Your task to perform on an android device: add a label to a message in the gmail app Image 0: 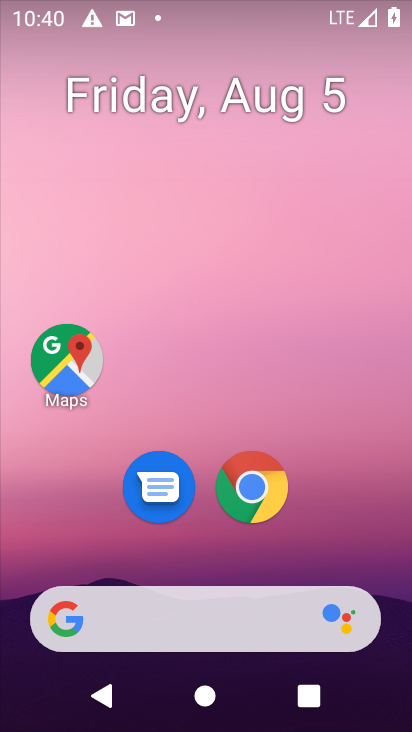
Step 0: drag from (181, 582) to (278, 0)
Your task to perform on an android device: add a label to a message in the gmail app Image 1: 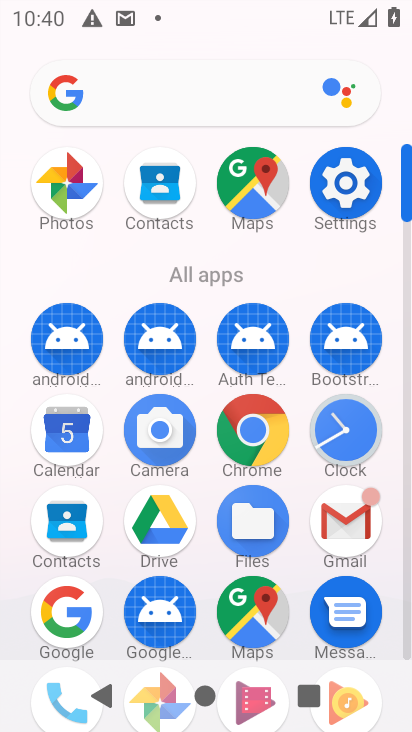
Step 1: click (354, 511)
Your task to perform on an android device: add a label to a message in the gmail app Image 2: 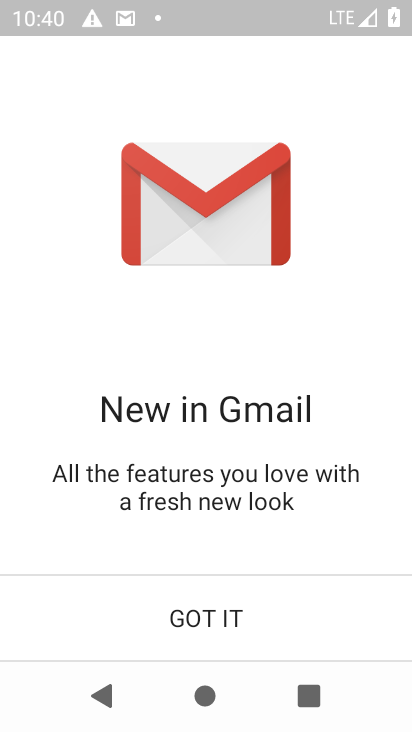
Step 2: click (201, 596)
Your task to perform on an android device: add a label to a message in the gmail app Image 3: 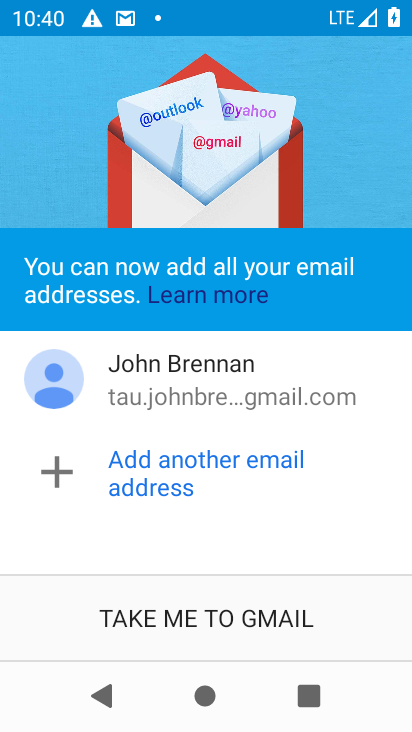
Step 3: click (254, 600)
Your task to perform on an android device: add a label to a message in the gmail app Image 4: 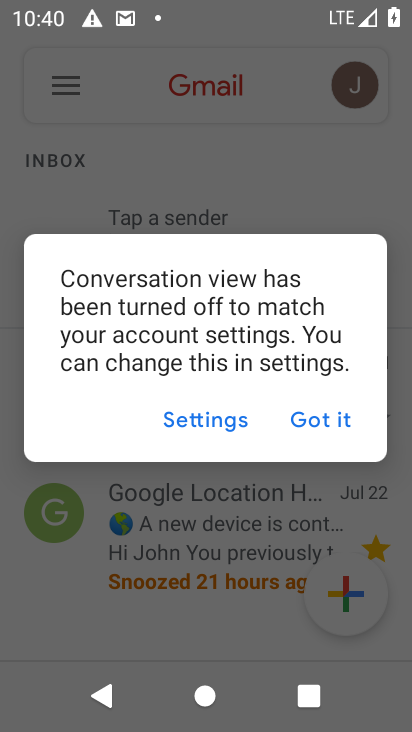
Step 4: click (293, 422)
Your task to perform on an android device: add a label to a message in the gmail app Image 5: 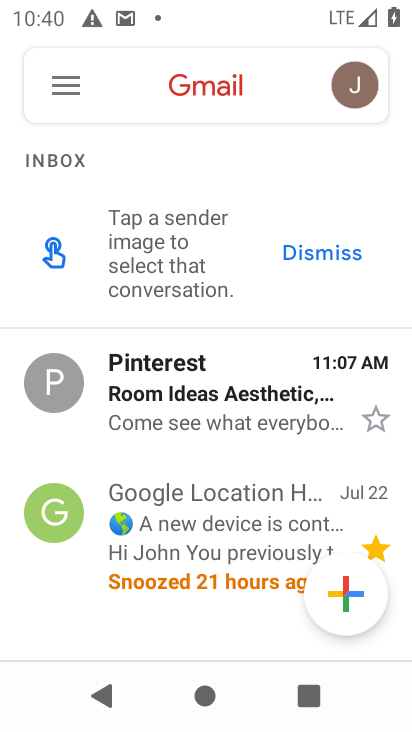
Step 5: click (318, 421)
Your task to perform on an android device: add a label to a message in the gmail app Image 6: 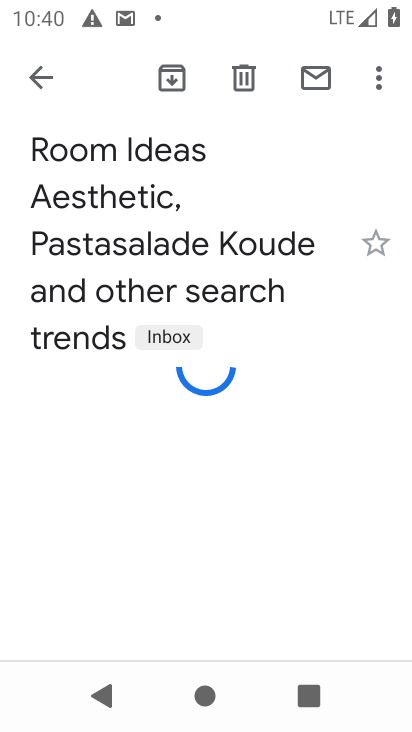
Step 6: click (373, 81)
Your task to perform on an android device: add a label to a message in the gmail app Image 7: 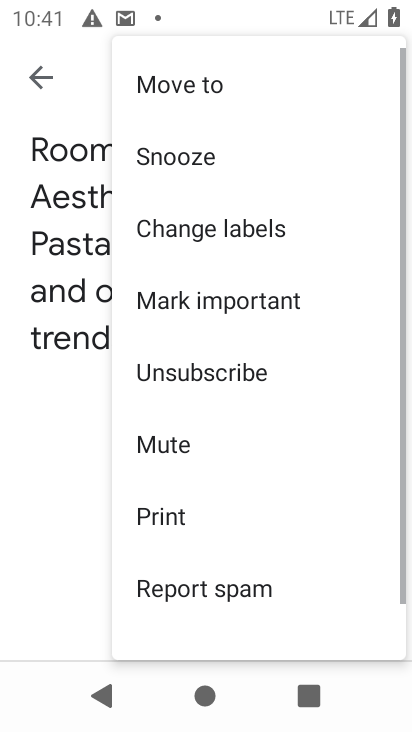
Step 7: click (242, 224)
Your task to perform on an android device: add a label to a message in the gmail app Image 8: 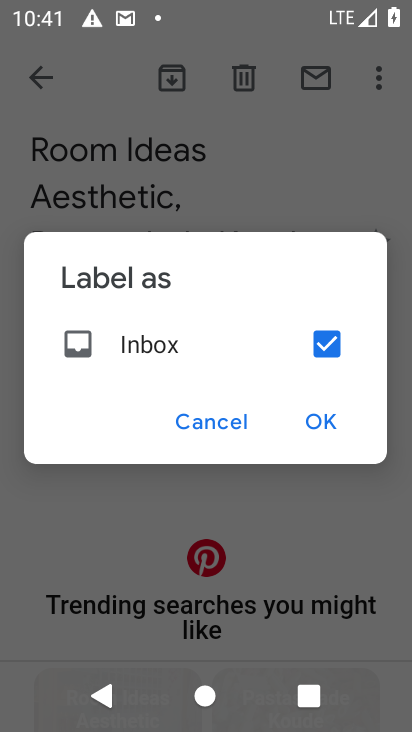
Step 8: click (113, 343)
Your task to perform on an android device: add a label to a message in the gmail app Image 9: 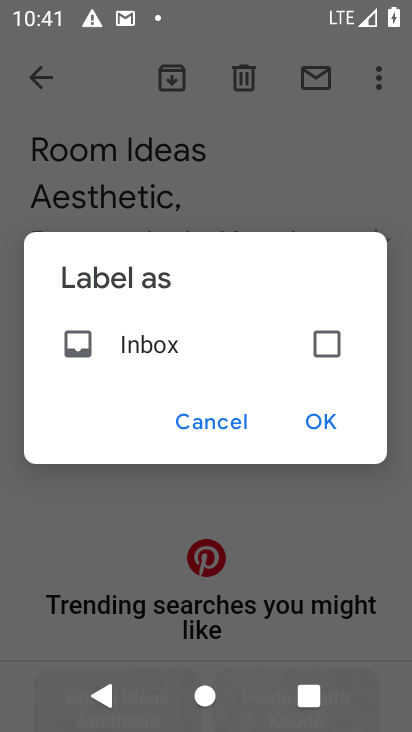
Step 9: click (266, 343)
Your task to perform on an android device: add a label to a message in the gmail app Image 10: 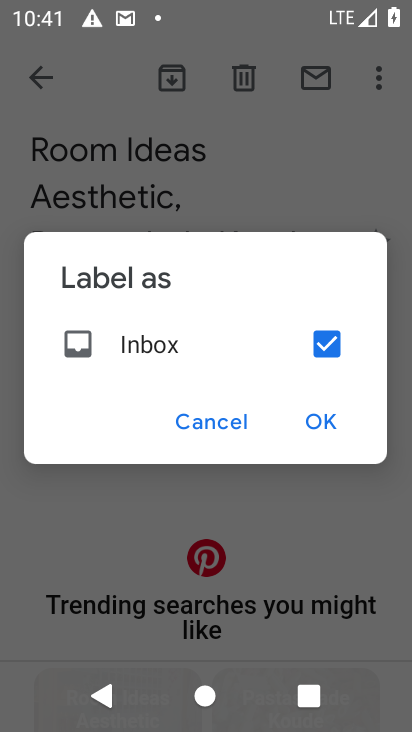
Step 10: click (320, 419)
Your task to perform on an android device: add a label to a message in the gmail app Image 11: 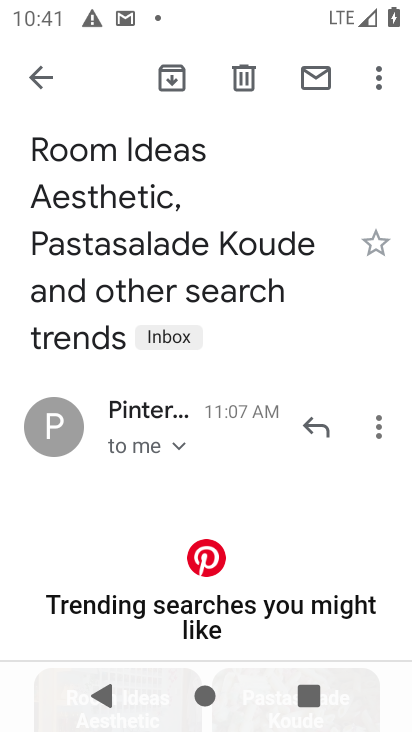
Step 11: task complete